Your task to perform on an android device: Go to battery settings Image 0: 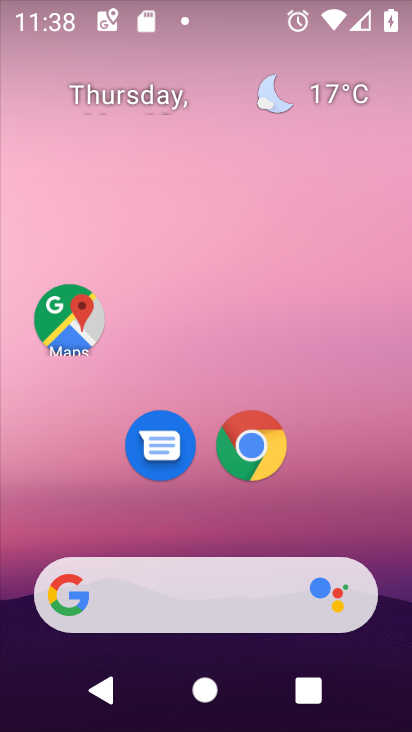
Step 0: drag from (197, 516) to (271, 177)
Your task to perform on an android device: Go to battery settings Image 1: 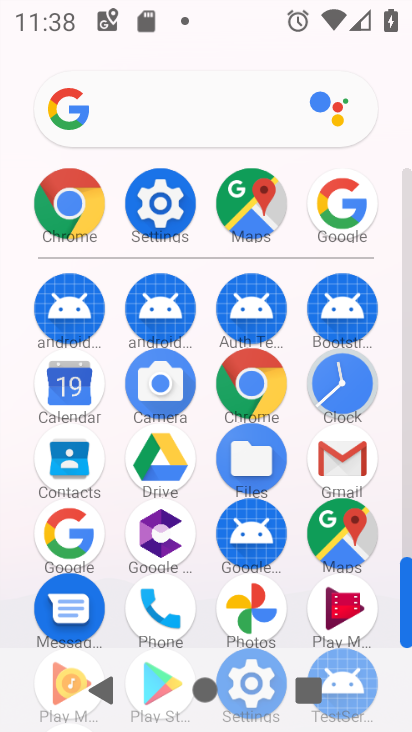
Step 1: click (152, 193)
Your task to perform on an android device: Go to battery settings Image 2: 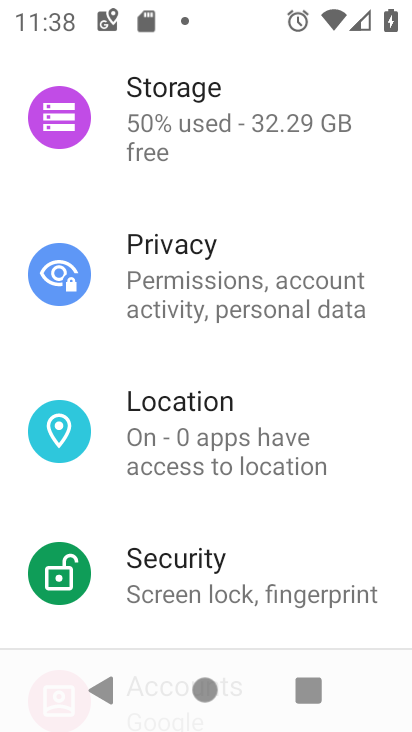
Step 2: drag from (208, 255) to (231, 542)
Your task to perform on an android device: Go to battery settings Image 3: 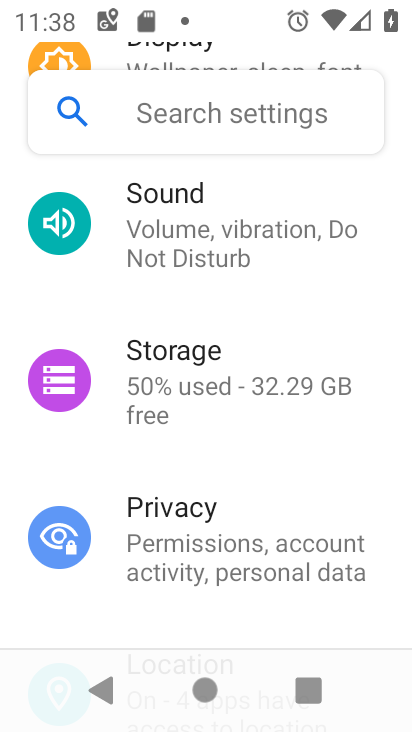
Step 3: drag from (223, 290) to (237, 522)
Your task to perform on an android device: Go to battery settings Image 4: 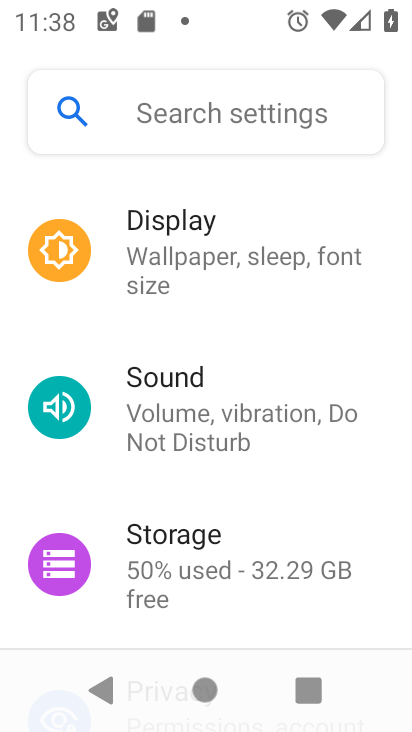
Step 4: drag from (278, 401) to (254, 535)
Your task to perform on an android device: Go to battery settings Image 5: 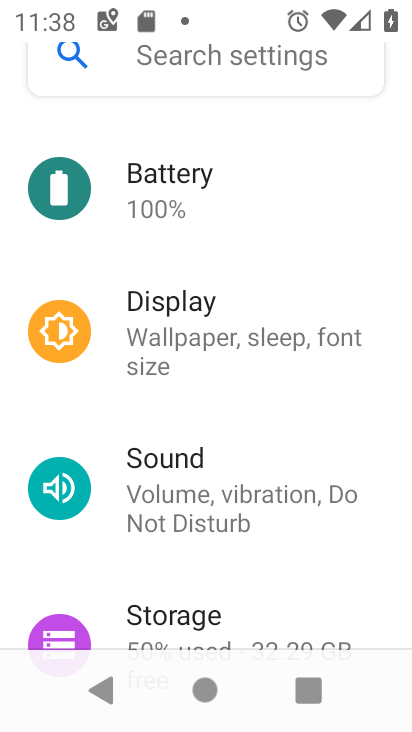
Step 5: click (233, 193)
Your task to perform on an android device: Go to battery settings Image 6: 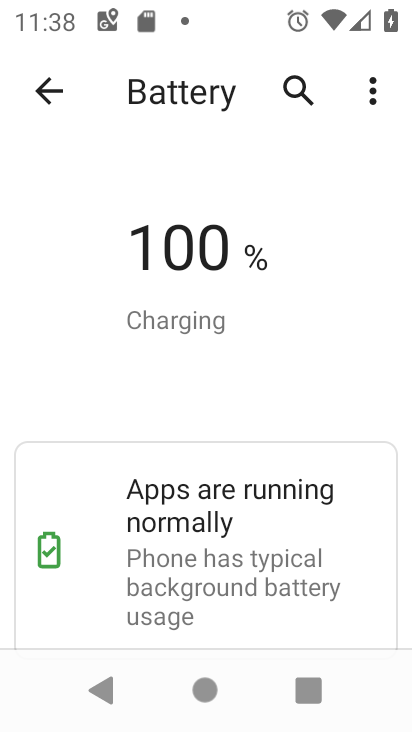
Step 6: task complete